Your task to perform on an android device: Open the phone app and click the voicemail tab. Image 0: 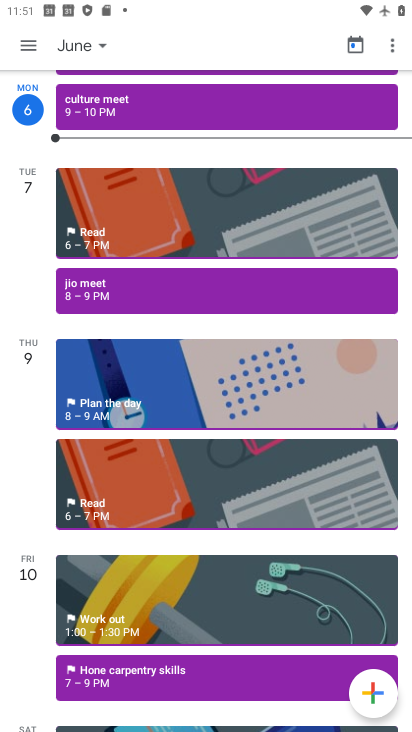
Step 0: press home button
Your task to perform on an android device: Open the phone app and click the voicemail tab. Image 1: 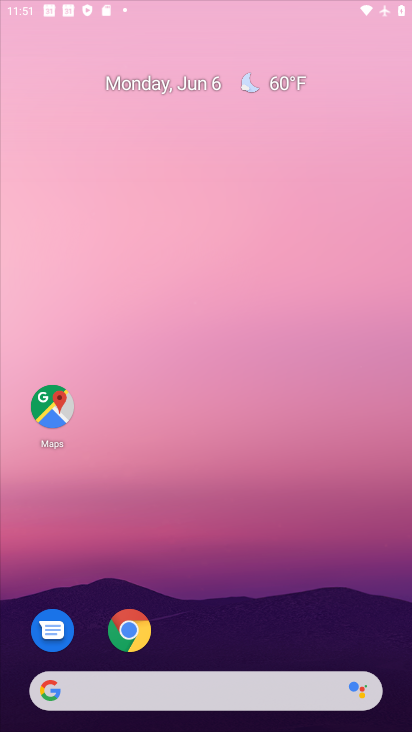
Step 1: drag from (369, 652) to (269, 63)
Your task to perform on an android device: Open the phone app and click the voicemail tab. Image 2: 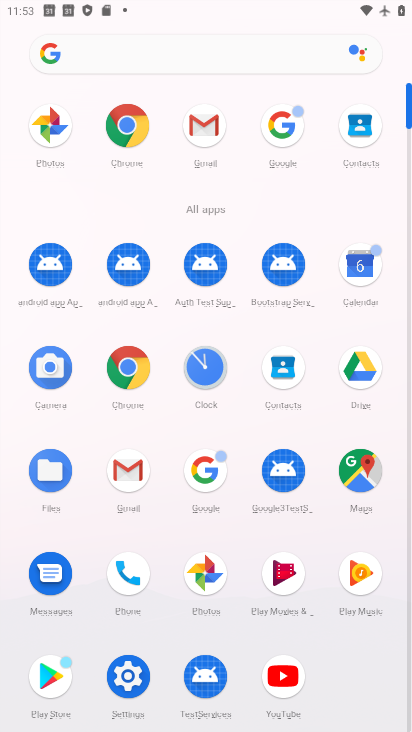
Step 2: click (125, 561)
Your task to perform on an android device: Open the phone app and click the voicemail tab. Image 3: 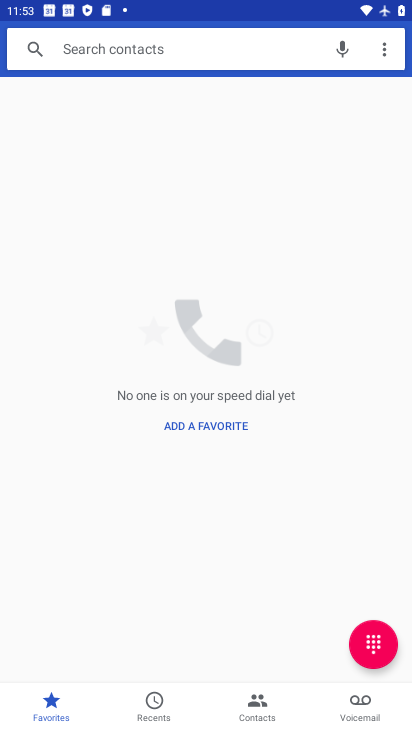
Step 3: click (356, 702)
Your task to perform on an android device: Open the phone app and click the voicemail tab. Image 4: 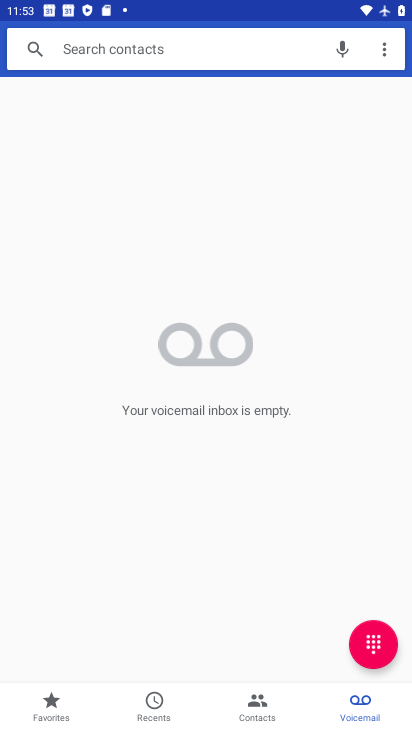
Step 4: task complete